Your task to perform on an android device: Show me popular videos on Youtube Image 0: 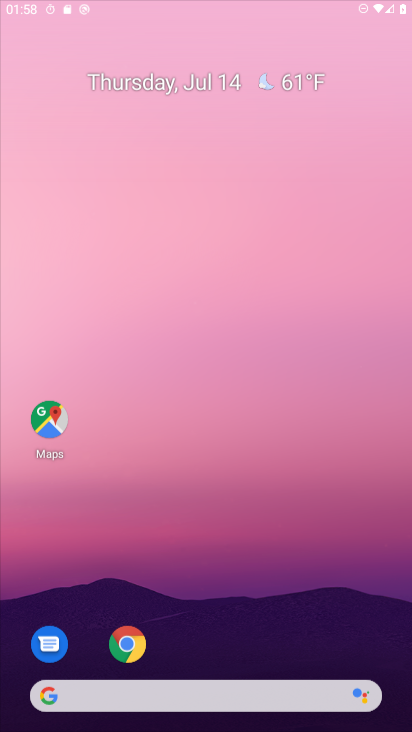
Step 0: click (191, 40)
Your task to perform on an android device: Show me popular videos on Youtube Image 1: 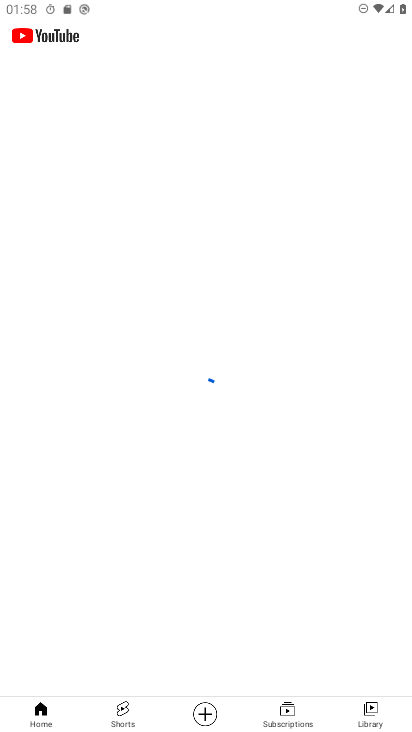
Step 1: press home button
Your task to perform on an android device: Show me popular videos on Youtube Image 2: 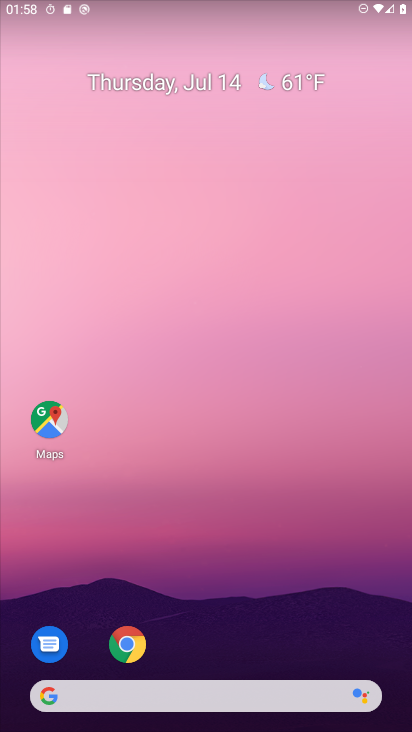
Step 2: drag from (275, 579) to (234, 62)
Your task to perform on an android device: Show me popular videos on Youtube Image 3: 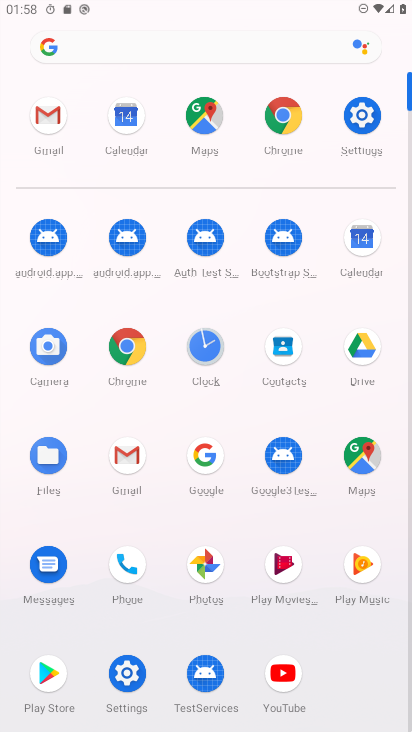
Step 3: click (283, 667)
Your task to perform on an android device: Show me popular videos on Youtube Image 4: 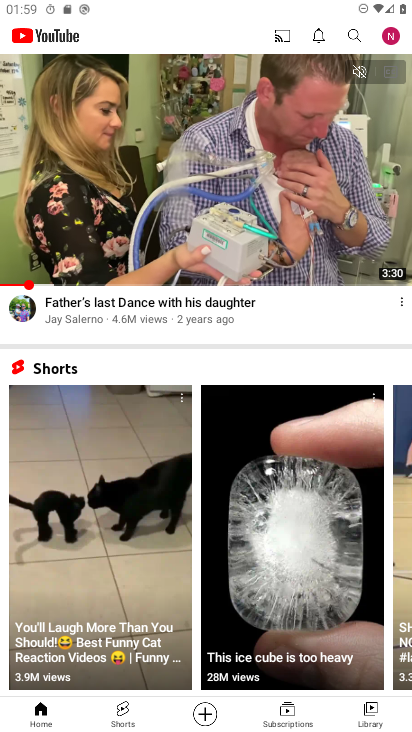
Step 4: drag from (95, 97) to (75, 404)
Your task to perform on an android device: Show me popular videos on Youtube Image 5: 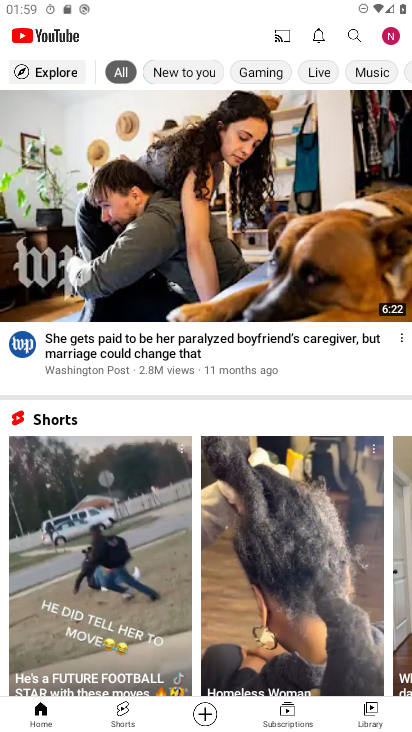
Step 5: click (37, 713)
Your task to perform on an android device: Show me popular videos on Youtube Image 6: 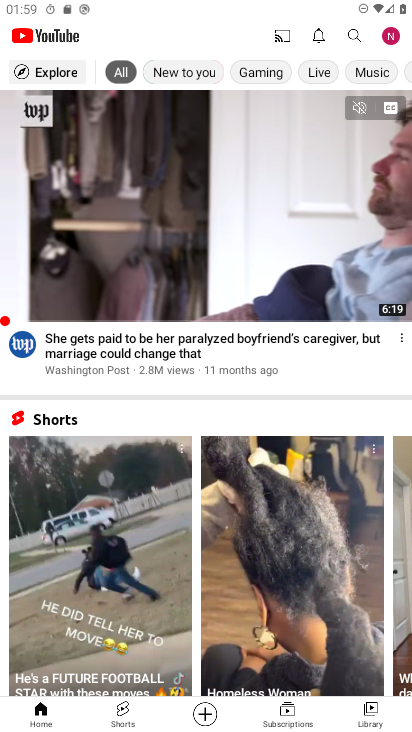
Step 6: drag from (384, 72) to (65, 70)
Your task to perform on an android device: Show me popular videos on Youtube Image 7: 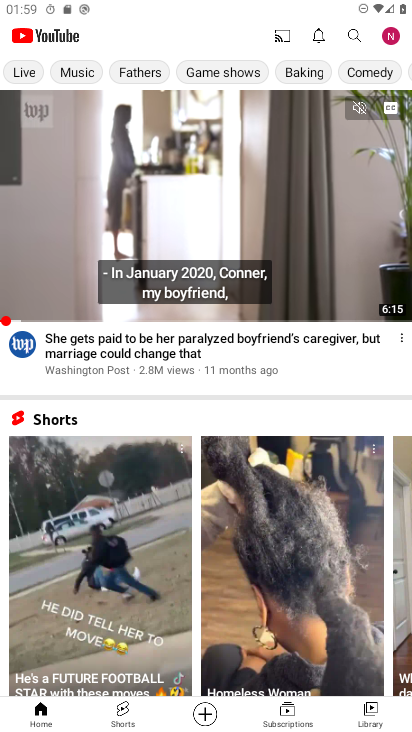
Step 7: drag from (365, 75) to (51, 76)
Your task to perform on an android device: Show me popular videos on Youtube Image 8: 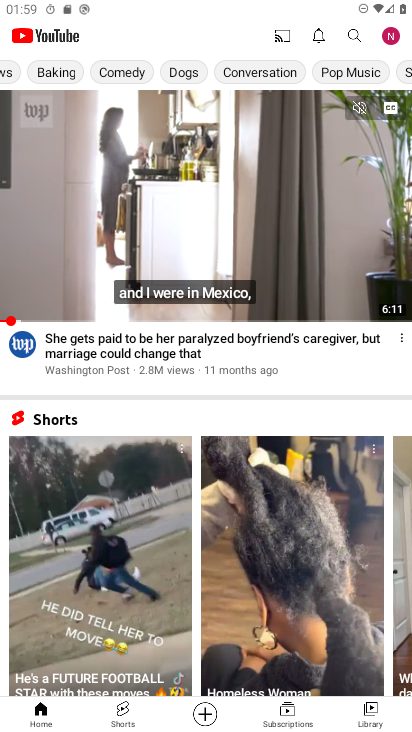
Step 8: drag from (348, 73) to (67, 76)
Your task to perform on an android device: Show me popular videos on Youtube Image 9: 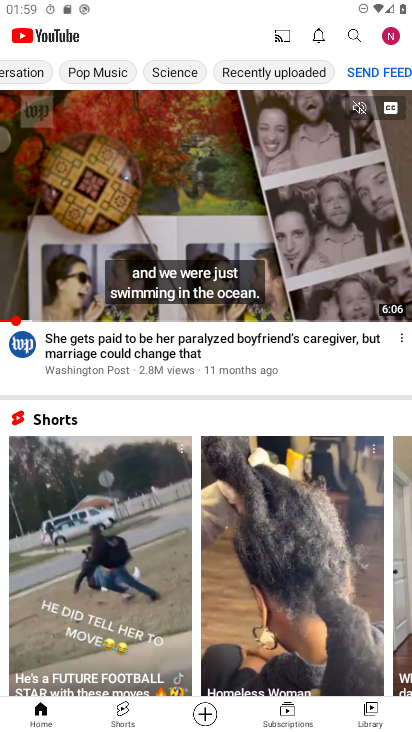
Step 9: drag from (32, 62) to (405, 91)
Your task to perform on an android device: Show me popular videos on Youtube Image 10: 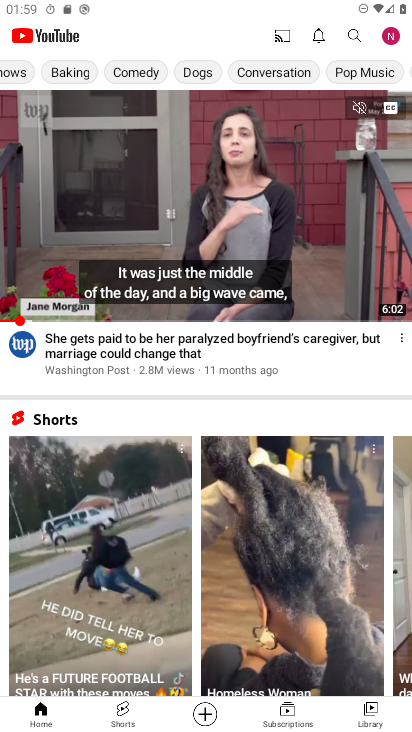
Step 10: drag from (70, 80) to (383, 101)
Your task to perform on an android device: Show me popular videos on Youtube Image 11: 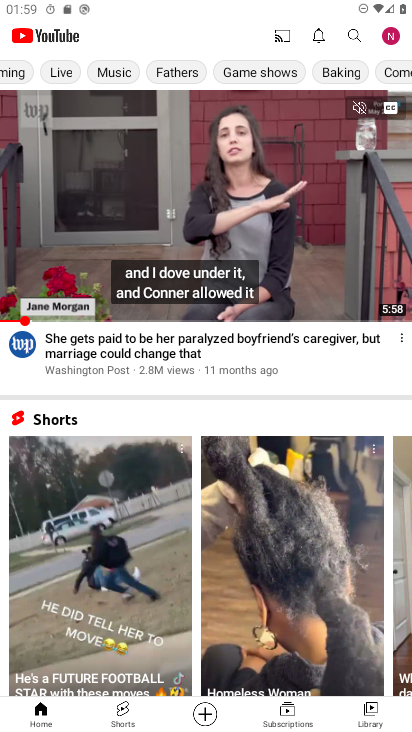
Step 11: drag from (48, 71) to (380, 93)
Your task to perform on an android device: Show me popular videos on Youtube Image 12: 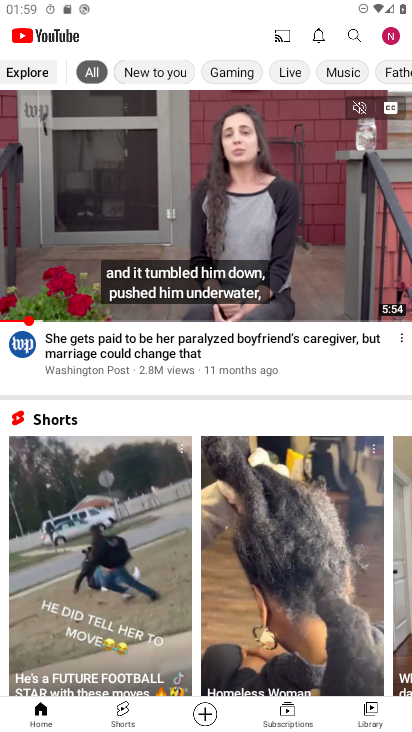
Step 12: click (35, 74)
Your task to perform on an android device: Show me popular videos on Youtube Image 13: 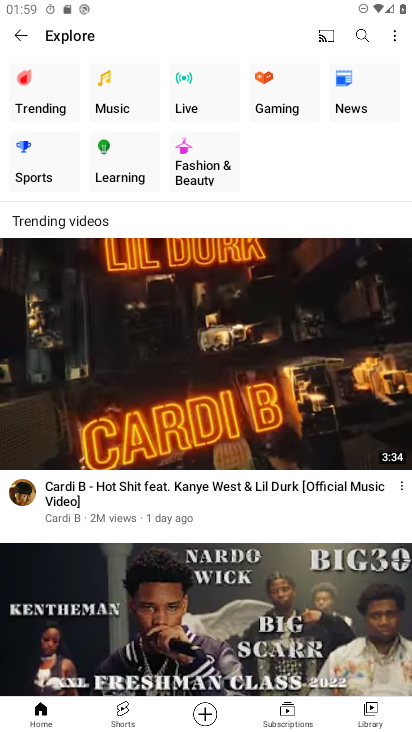
Step 13: task complete